Your task to perform on an android device: Open ESPN.com Image 0: 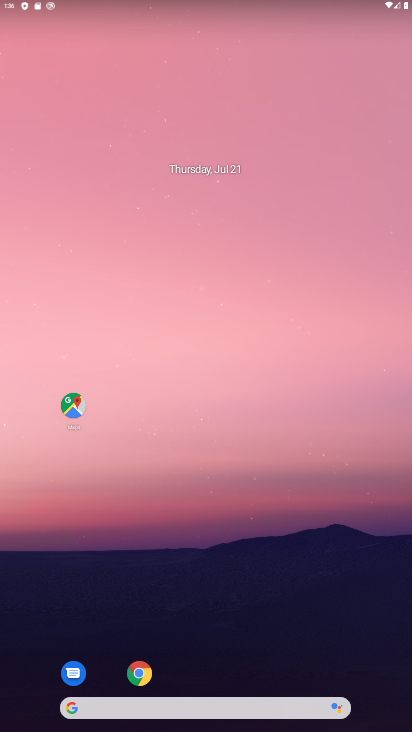
Step 0: click (141, 675)
Your task to perform on an android device: Open ESPN.com Image 1: 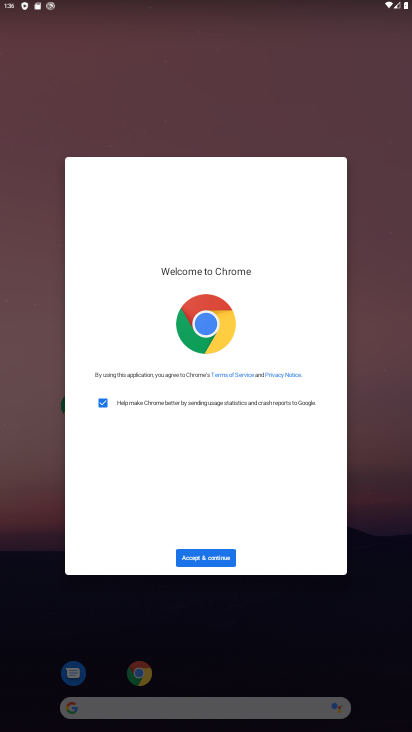
Step 1: click (200, 555)
Your task to perform on an android device: Open ESPN.com Image 2: 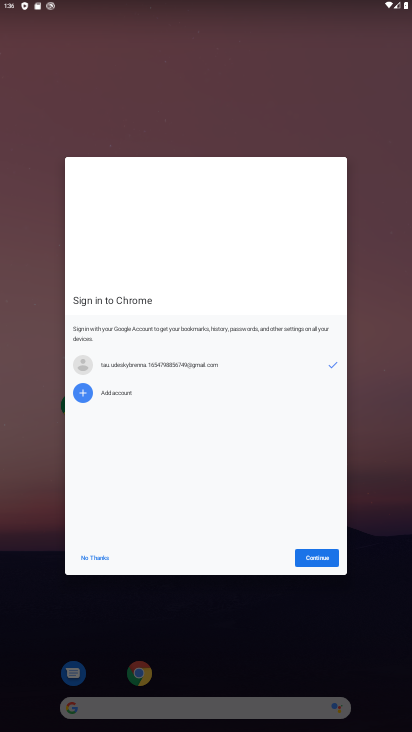
Step 2: click (312, 554)
Your task to perform on an android device: Open ESPN.com Image 3: 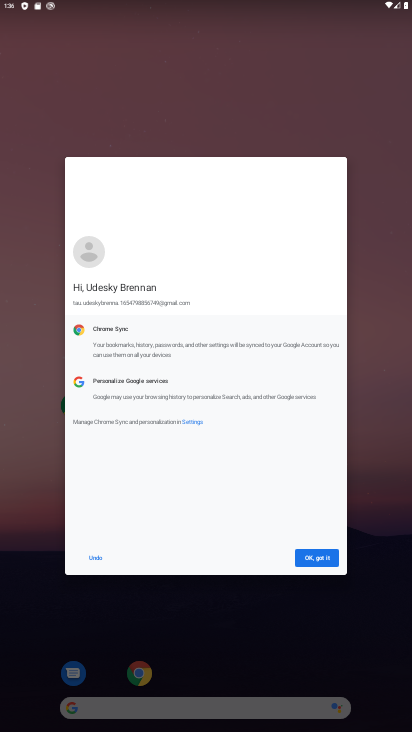
Step 3: click (312, 554)
Your task to perform on an android device: Open ESPN.com Image 4: 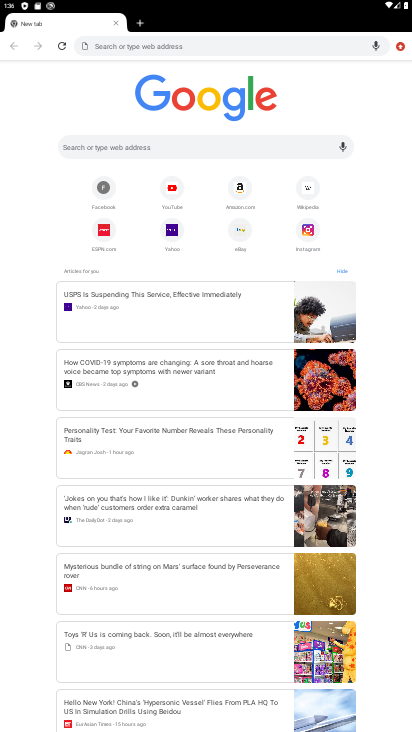
Step 4: click (93, 250)
Your task to perform on an android device: Open ESPN.com Image 5: 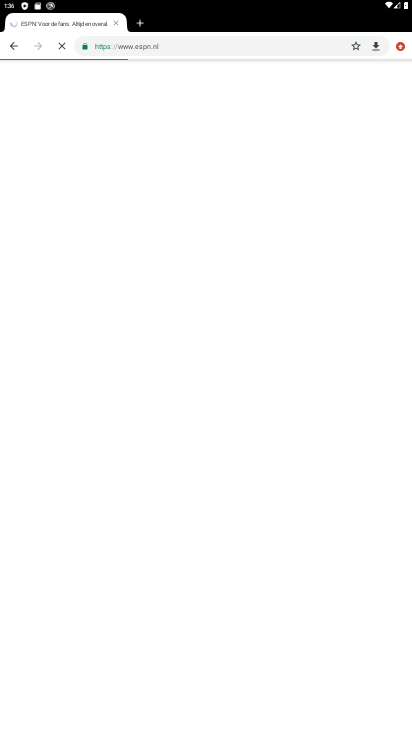
Step 5: task complete